Your task to perform on an android device: Open ESPN.com Image 0: 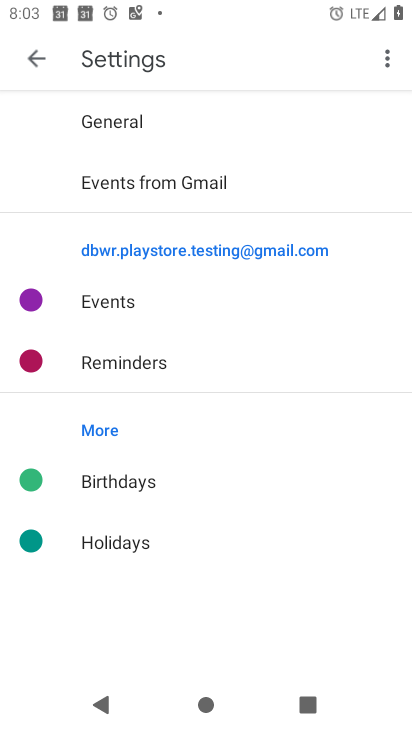
Step 0: press home button
Your task to perform on an android device: Open ESPN.com Image 1: 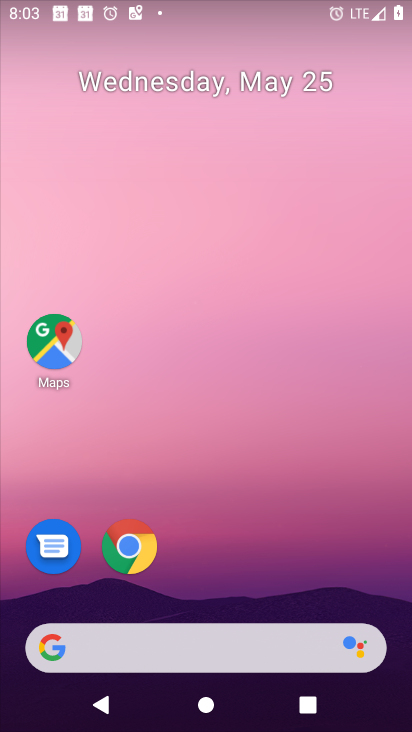
Step 1: drag from (388, 589) to (411, 177)
Your task to perform on an android device: Open ESPN.com Image 2: 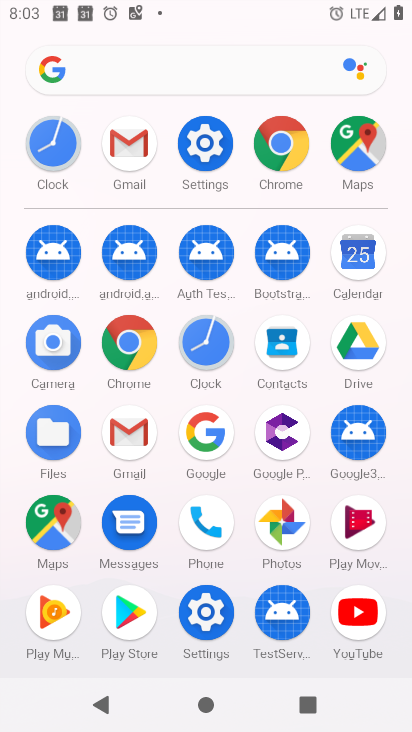
Step 2: click (130, 359)
Your task to perform on an android device: Open ESPN.com Image 3: 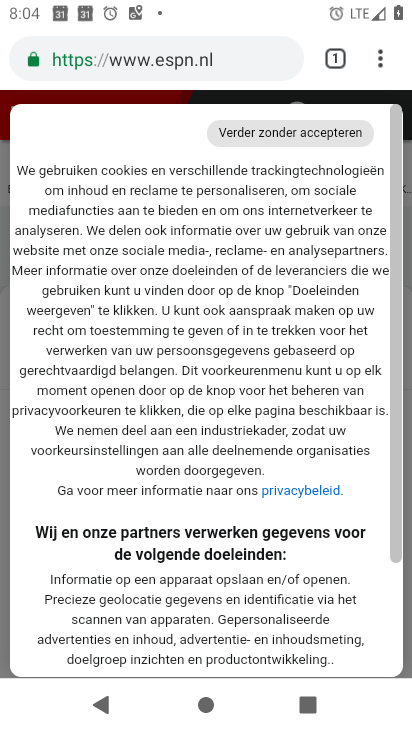
Step 3: click (215, 69)
Your task to perform on an android device: Open ESPN.com Image 4: 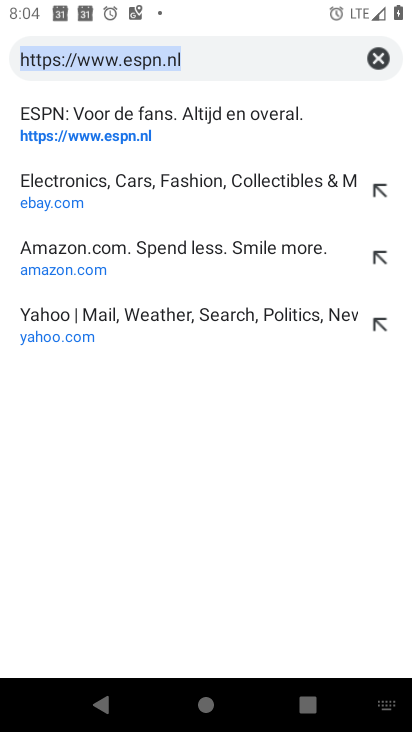
Step 4: click (381, 69)
Your task to perform on an android device: Open ESPN.com Image 5: 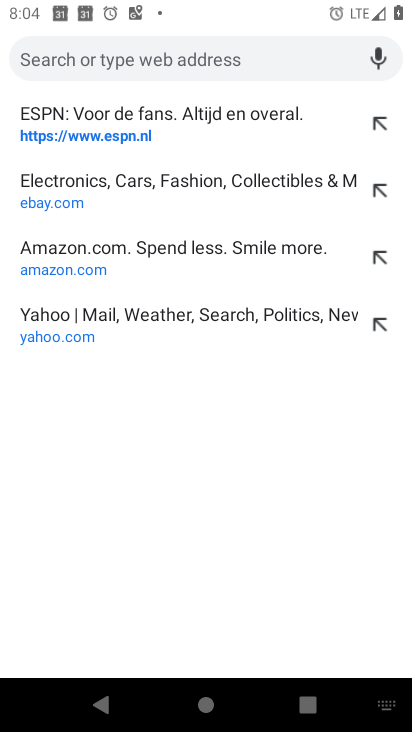
Step 5: type "espn.com"
Your task to perform on an android device: Open ESPN.com Image 6: 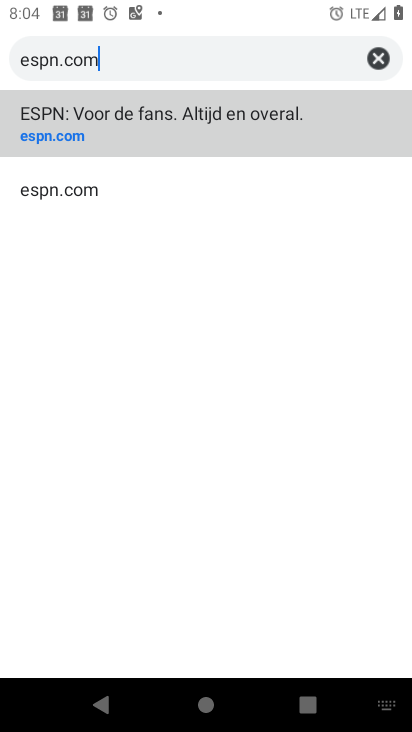
Step 6: click (133, 128)
Your task to perform on an android device: Open ESPN.com Image 7: 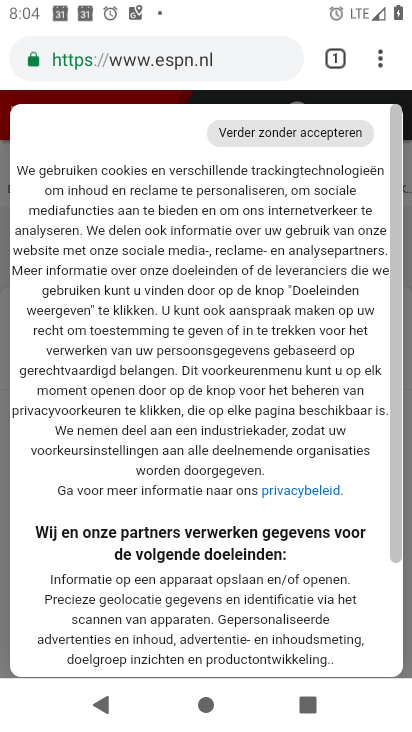
Step 7: task complete